Your task to perform on an android device: turn off javascript in the chrome app Image 0: 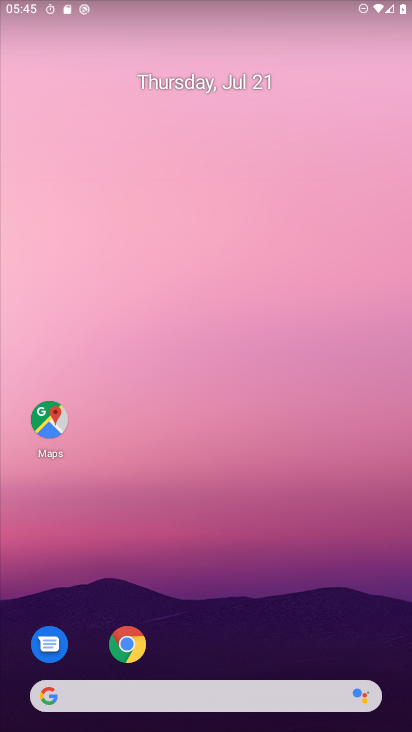
Step 0: click (130, 637)
Your task to perform on an android device: turn off javascript in the chrome app Image 1: 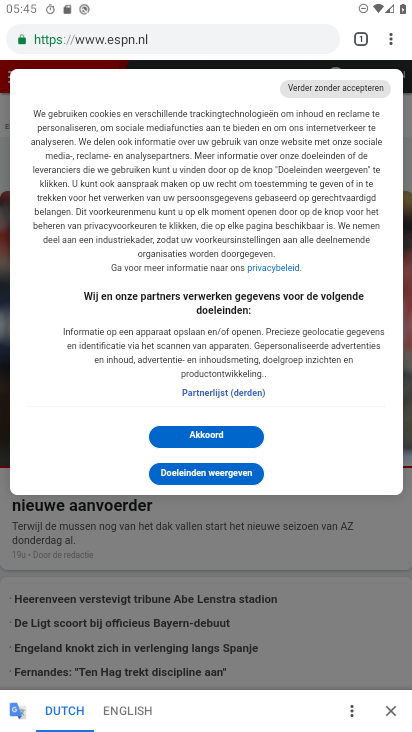
Step 1: click (388, 38)
Your task to perform on an android device: turn off javascript in the chrome app Image 2: 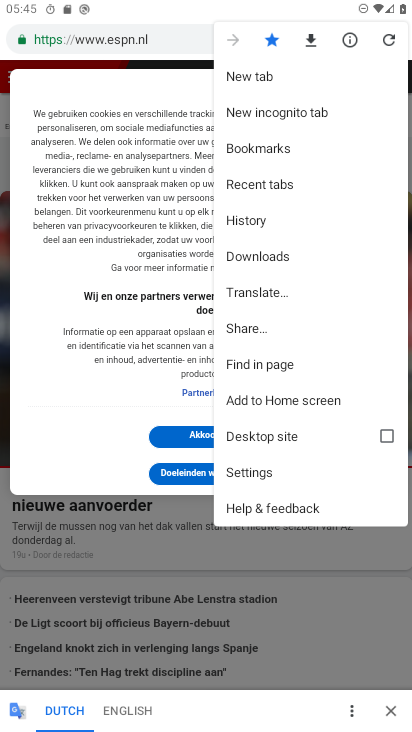
Step 2: click (245, 467)
Your task to perform on an android device: turn off javascript in the chrome app Image 3: 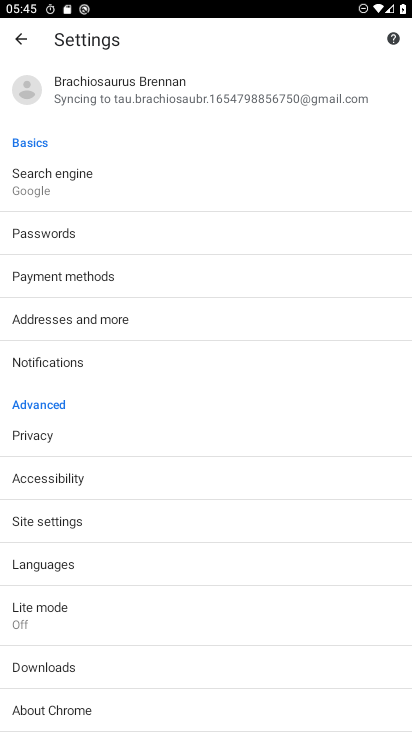
Step 3: click (61, 518)
Your task to perform on an android device: turn off javascript in the chrome app Image 4: 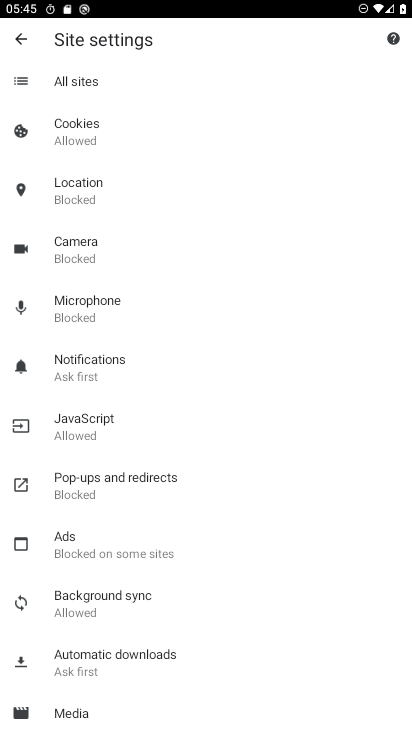
Step 4: click (92, 427)
Your task to perform on an android device: turn off javascript in the chrome app Image 5: 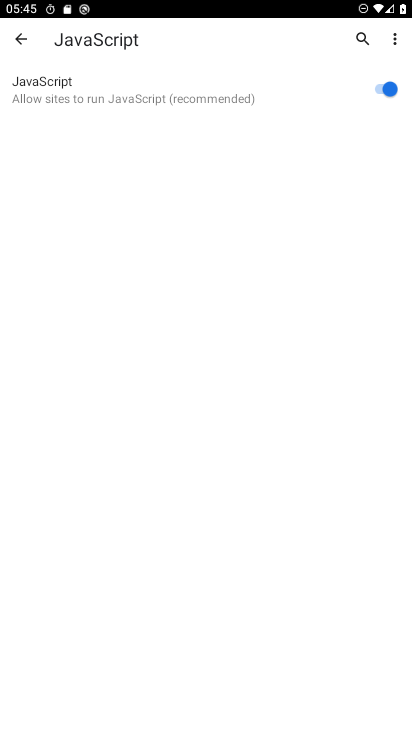
Step 5: click (379, 91)
Your task to perform on an android device: turn off javascript in the chrome app Image 6: 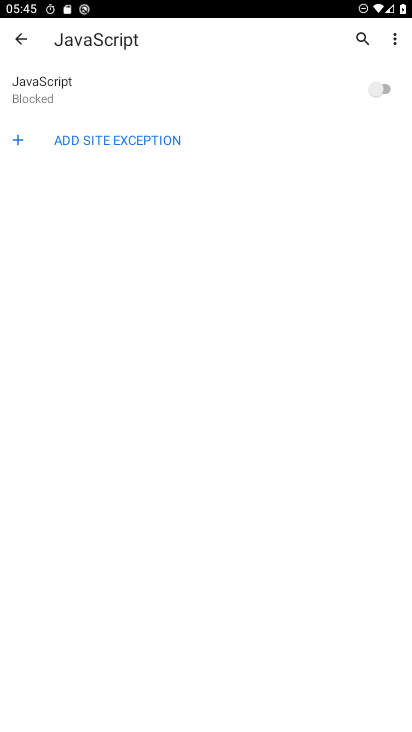
Step 6: task complete